Your task to perform on an android device: turn on airplane mode Image 0: 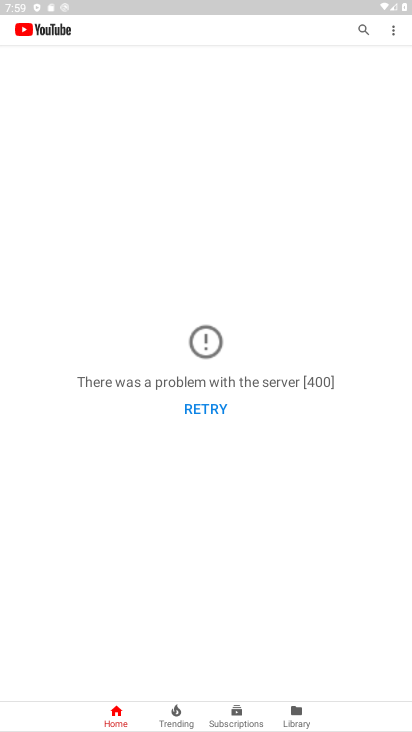
Step 0: drag from (200, 8) to (125, 231)
Your task to perform on an android device: turn on airplane mode Image 1: 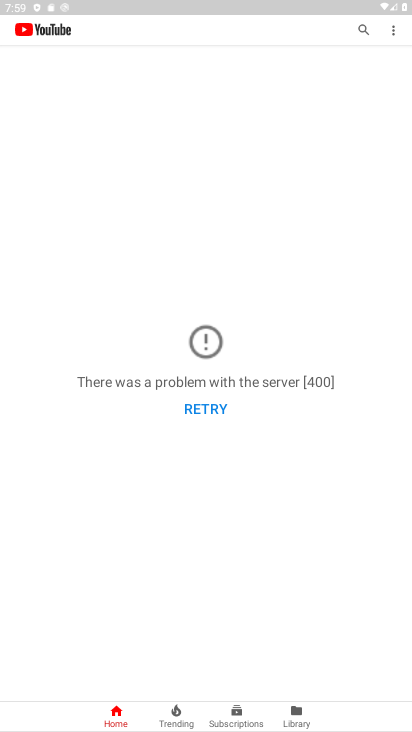
Step 1: drag from (199, 7) to (63, 256)
Your task to perform on an android device: turn on airplane mode Image 2: 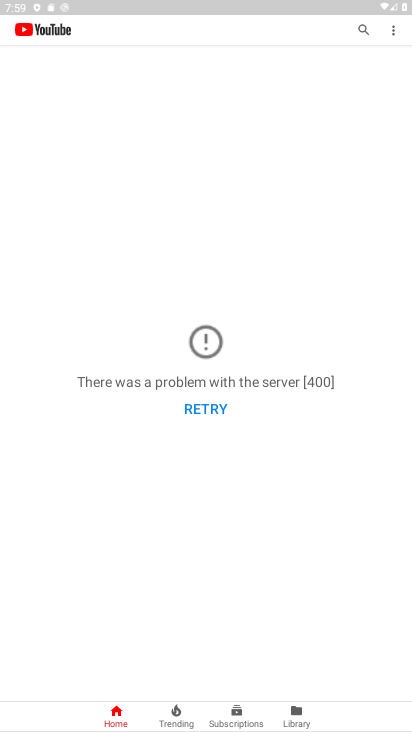
Step 2: drag from (192, 7) to (169, 425)
Your task to perform on an android device: turn on airplane mode Image 3: 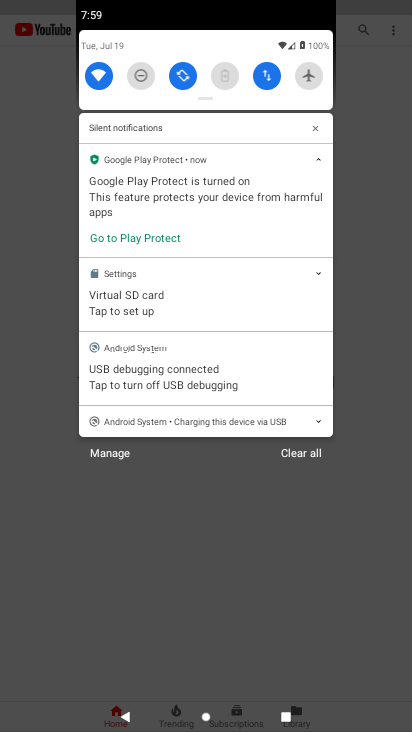
Step 3: click (301, 79)
Your task to perform on an android device: turn on airplane mode Image 4: 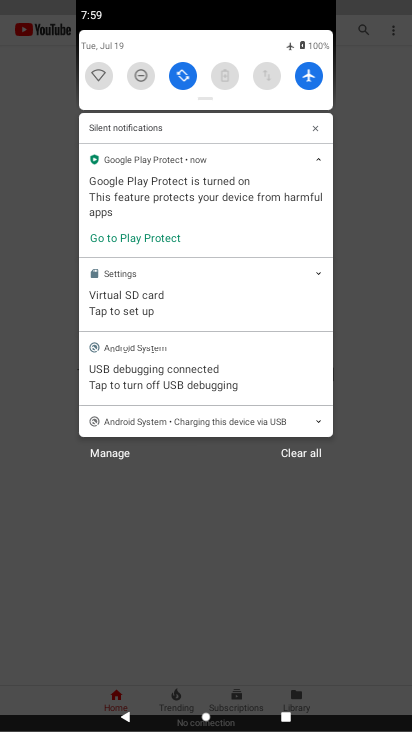
Step 4: task complete